Your task to perform on an android device: Open the map Image 0: 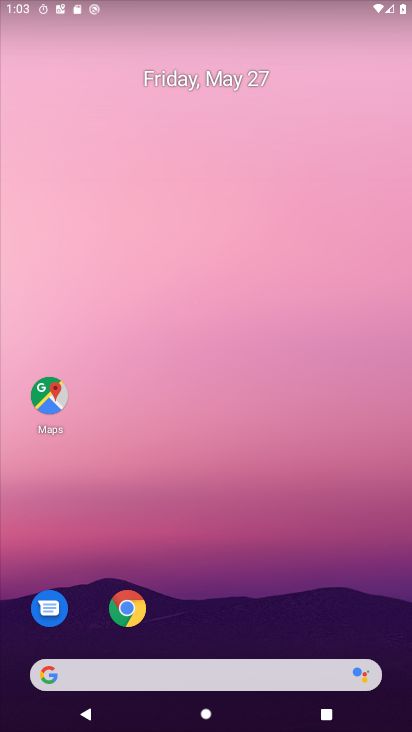
Step 0: click (60, 389)
Your task to perform on an android device: Open the map Image 1: 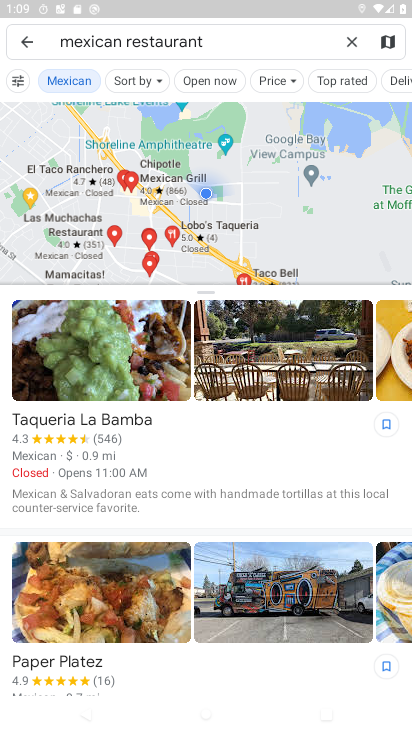
Step 1: task complete